Your task to perform on an android device: remove spam from my inbox in the gmail app Image 0: 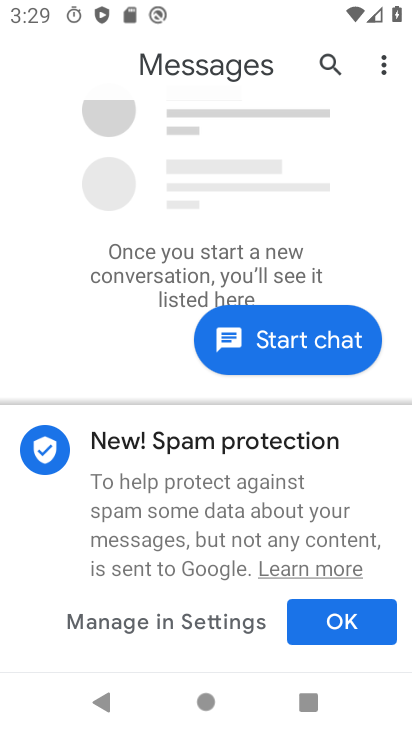
Step 0: press home button
Your task to perform on an android device: remove spam from my inbox in the gmail app Image 1: 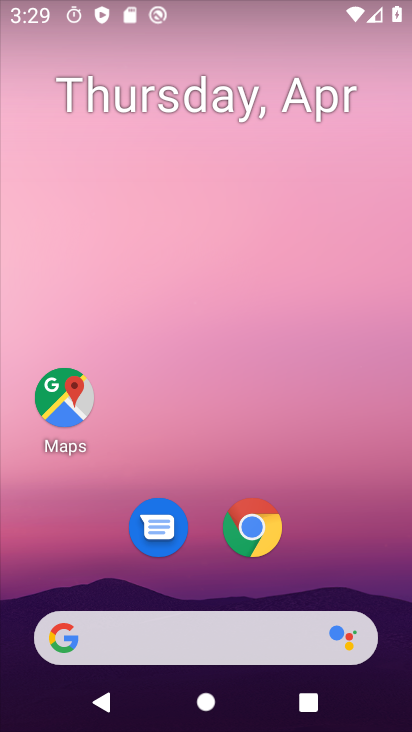
Step 1: drag from (347, 558) to (334, 97)
Your task to perform on an android device: remove spam from my inbox in the gmail app Image 2: 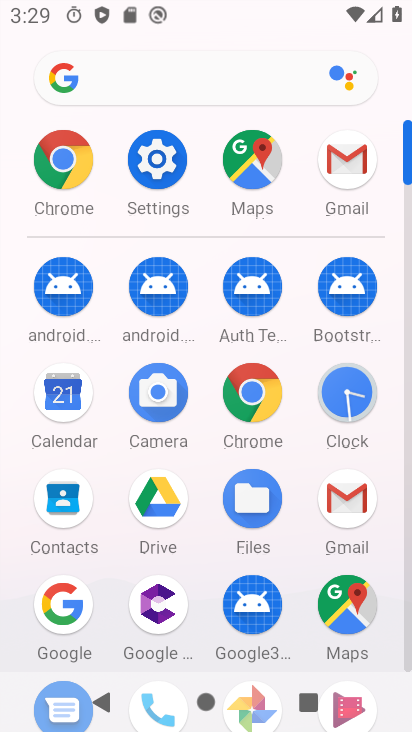
Step 2: click (357, 501)
Your task to perform on an android device: remove spam from my inbox in the gmail app Image 3: 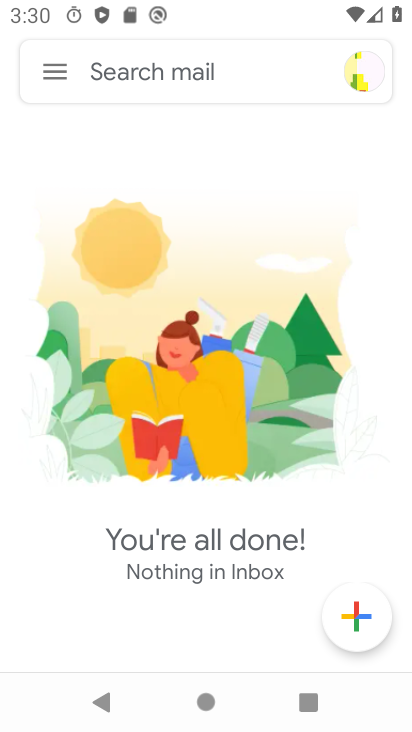
Step 3: click (55, 83)
Your task to perform on an android device: remove spam from my inbox in the gmail app Image 4: 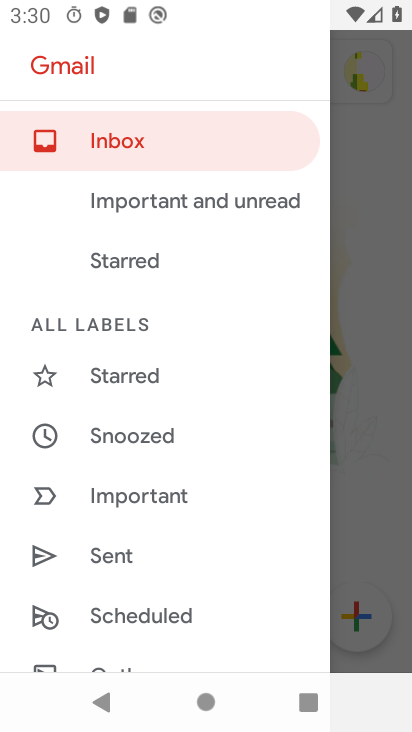
Step 4: drag from (153, 591) to (143, 180)
Your task to perform on an android device: remove spam from my inbox in the gmail app Image 5: 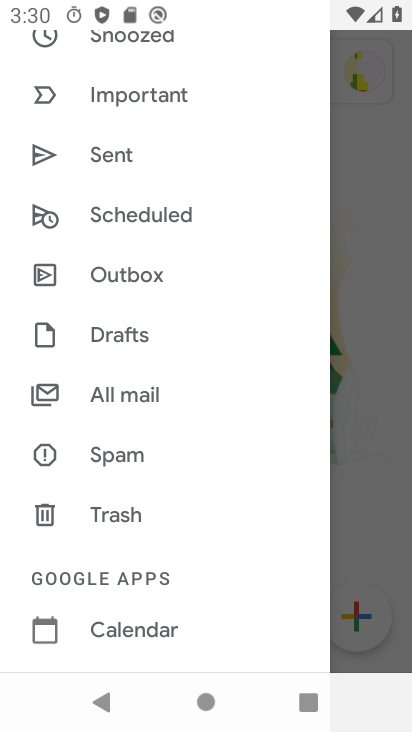
Step 5: click (148, 454)
Your task to perform on an android device: remove spam from my inbox in the gmail app Image 6: 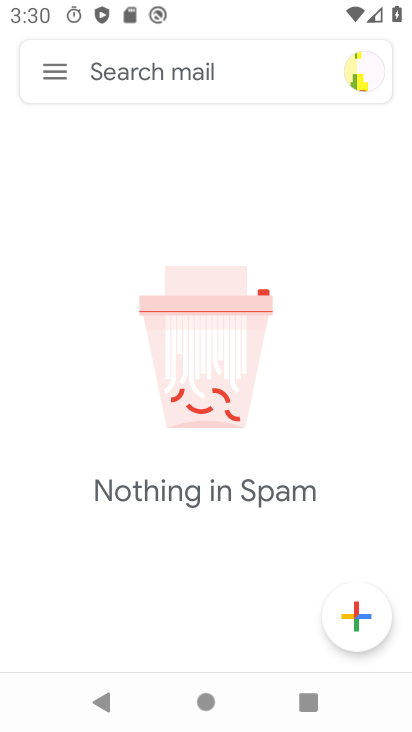
Step 6: task complete